Your task to perform on an android device: toggle priority inbox in the gmail app Image 0: 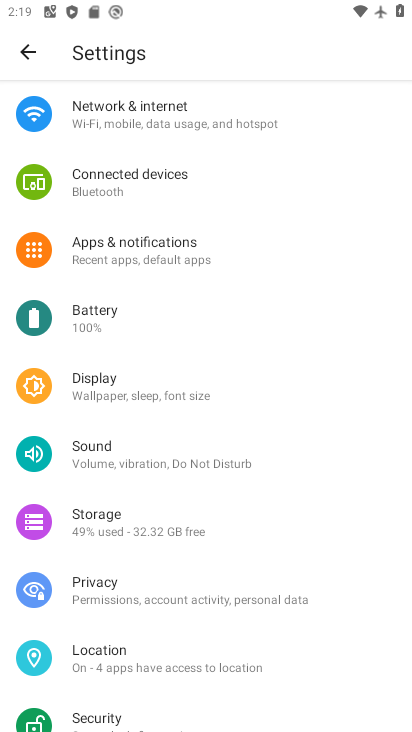
Step 0: press home button
Your task to perform on an android device: toggle priority inbox in the gmail app Image 1: 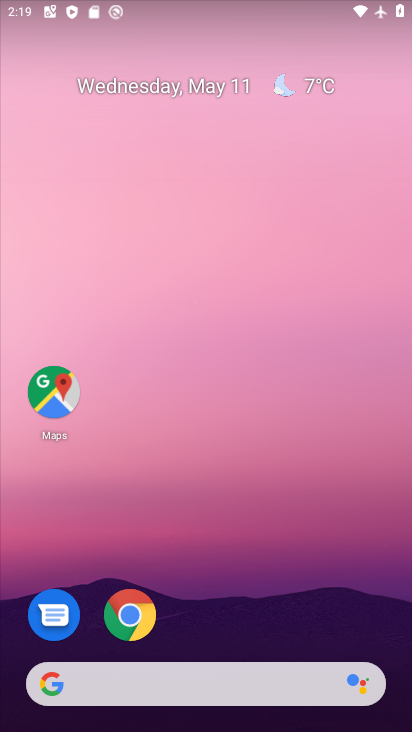
Step 1: drag from (273, 609) to (245, 179)
Your task to perform on an android device: toggle priority inbox in the gmail app Image 2: 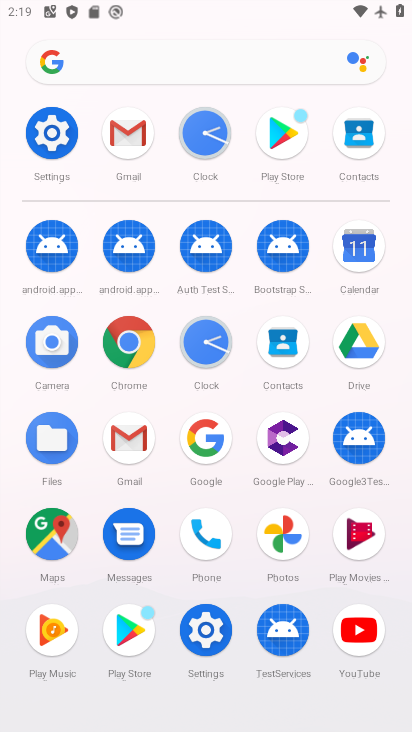
Step 2: click (131, 441)
Your task to perform on an android device: toggle priority inbox in the gmail app Image 3: 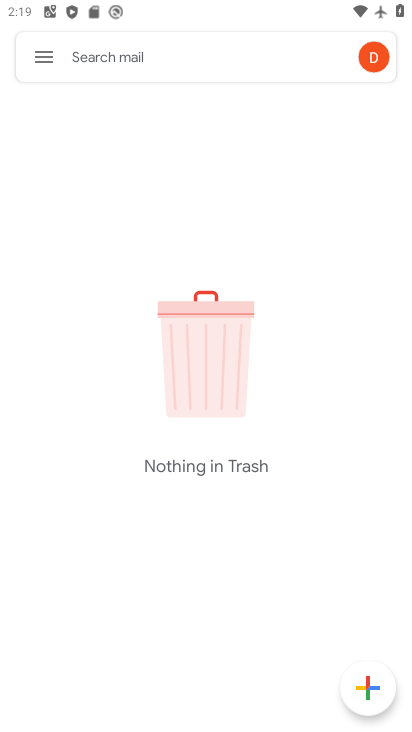
Step 3: click (41, 50)
Your task to perform on an android device: toggle priority inbox in the gmail app Image 4: 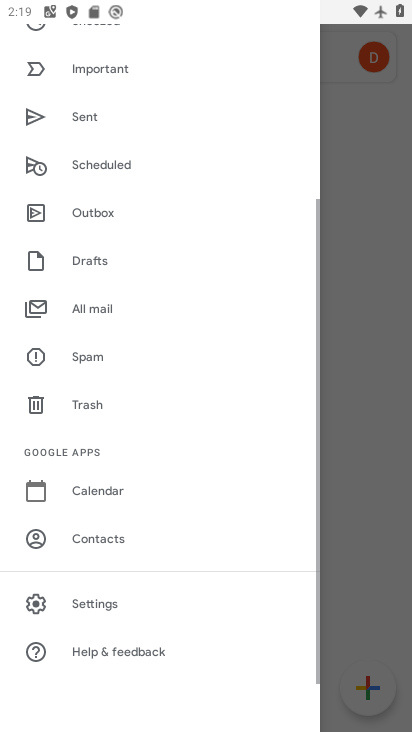
Step 4: click (118, 614)
Your task to perform on an android device: toggle priority inbox in the gmail app Image 5: 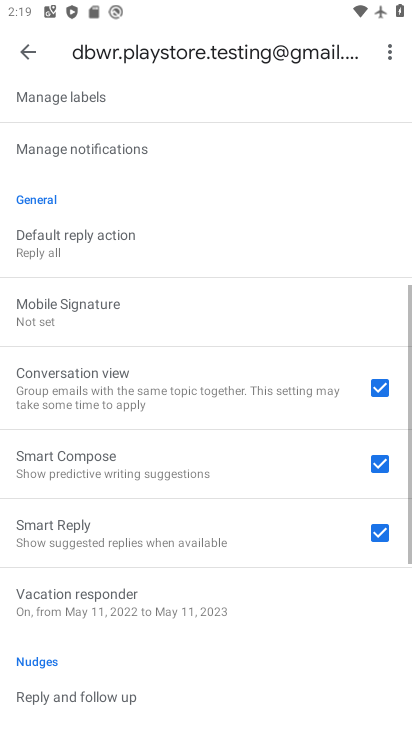
Step 5: drag from (177, 175) to (143, 646)
Your task to perform on an android device: toggle priority inbox in the gmail app Image 6: 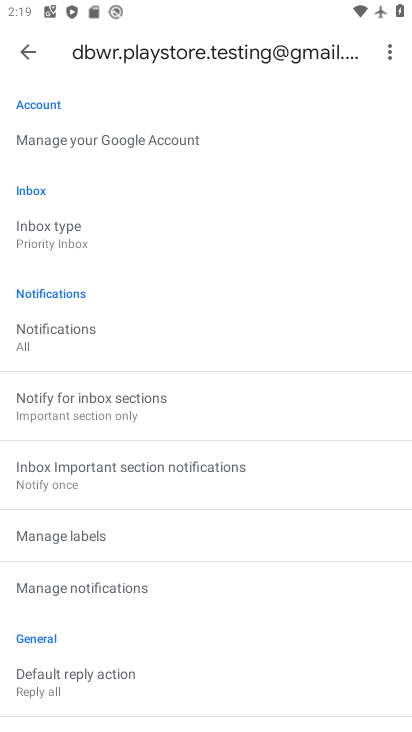
Step 6: click (78, 230)
Your task to perform on an android device: toggle priority inbox in the gmail app Image 7: 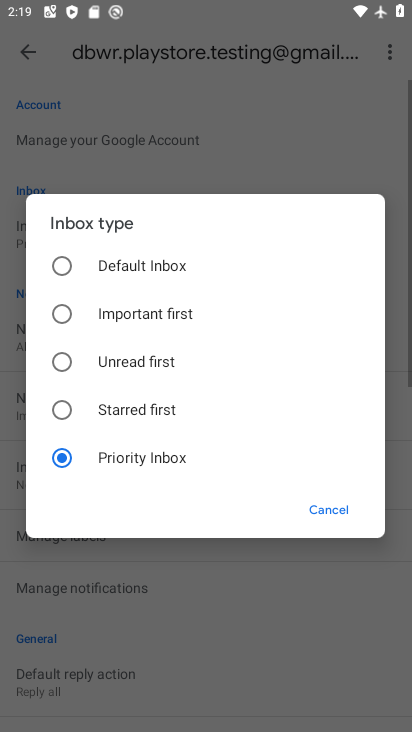
Step 7: click (153, 413)
Your task to perform on an android device: toggle priority inbox in the gmail app Image 8: 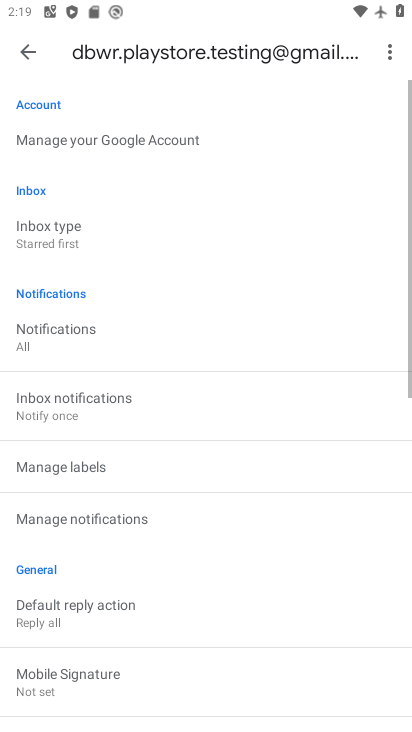
Step 8: task complete